Your task to perform on an android device: toggle location history Image 0: 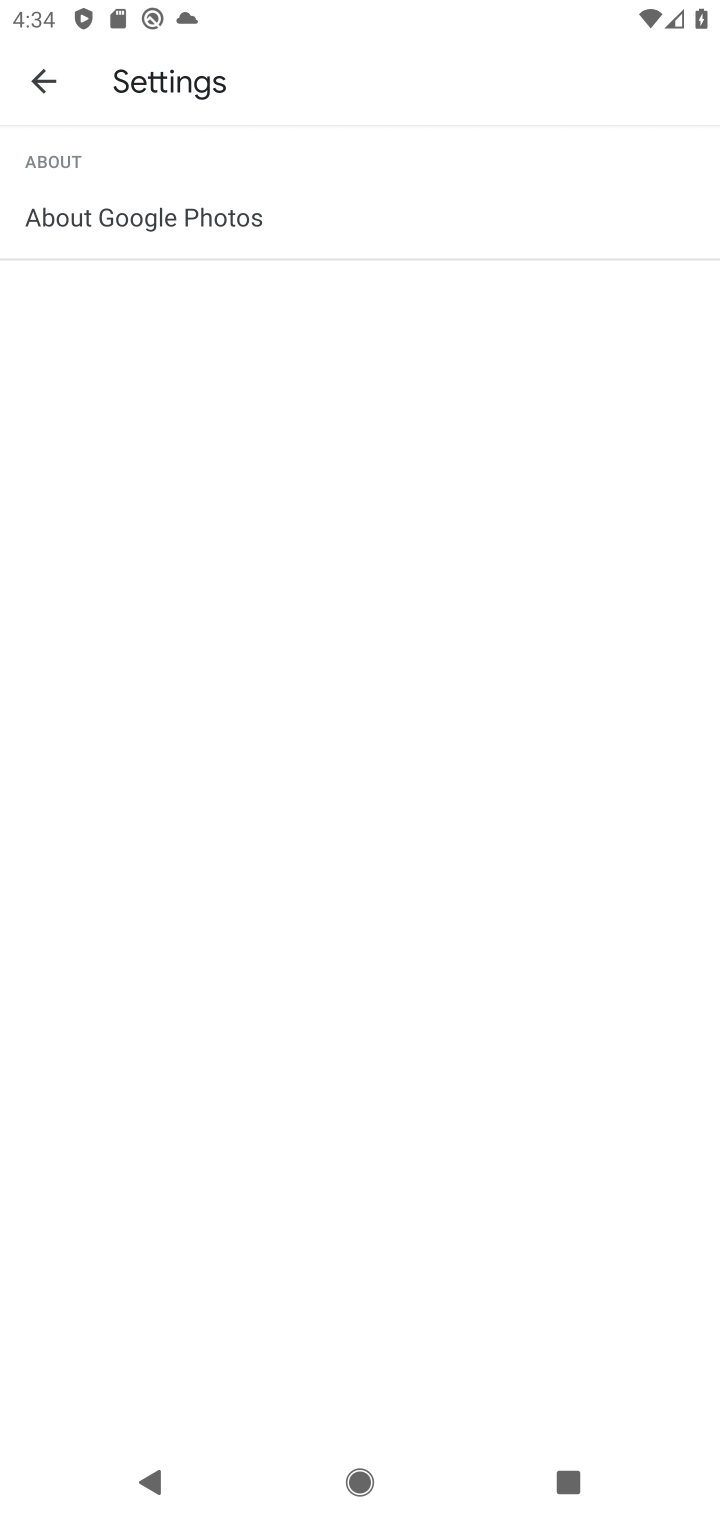
Step 0: press back button
Your task to perform on an android device: toggle location history Image 1: 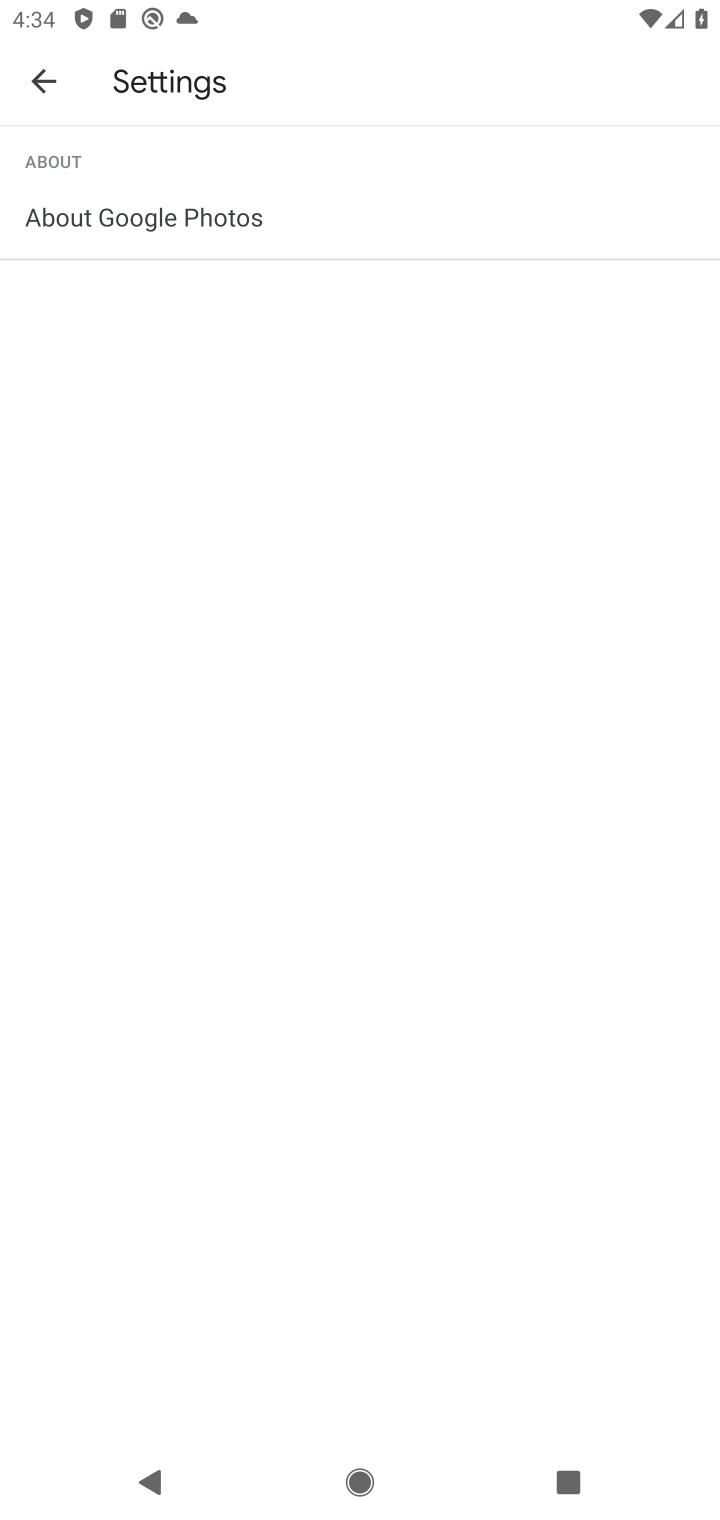
Step 1: press back button
Your task to perform on an android device: toggle location history Image 2: 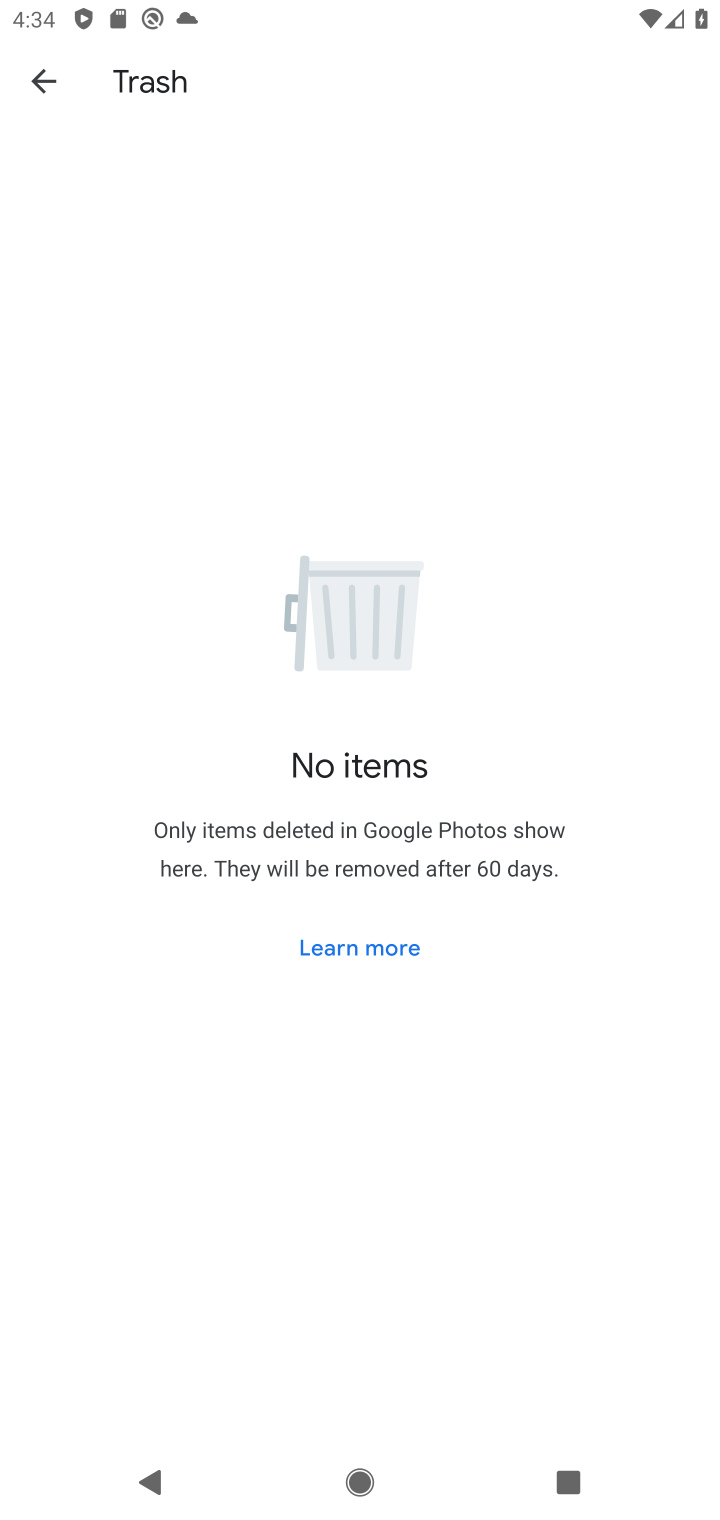
Step 2: press back button
Your task to perform on an android device: toggle location history Image 3: 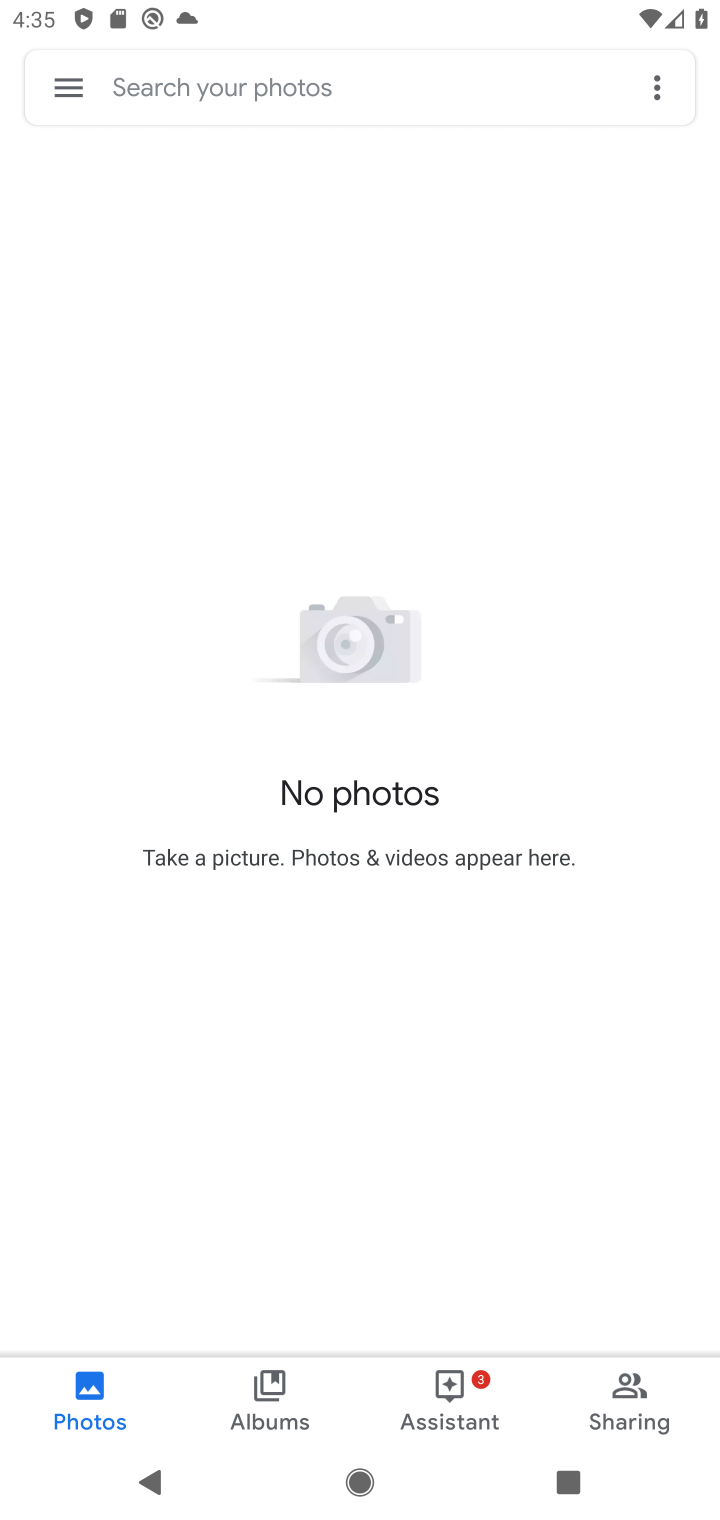
Step 3: press back button
Your task to perform on an android device: toggle location history Image 4: 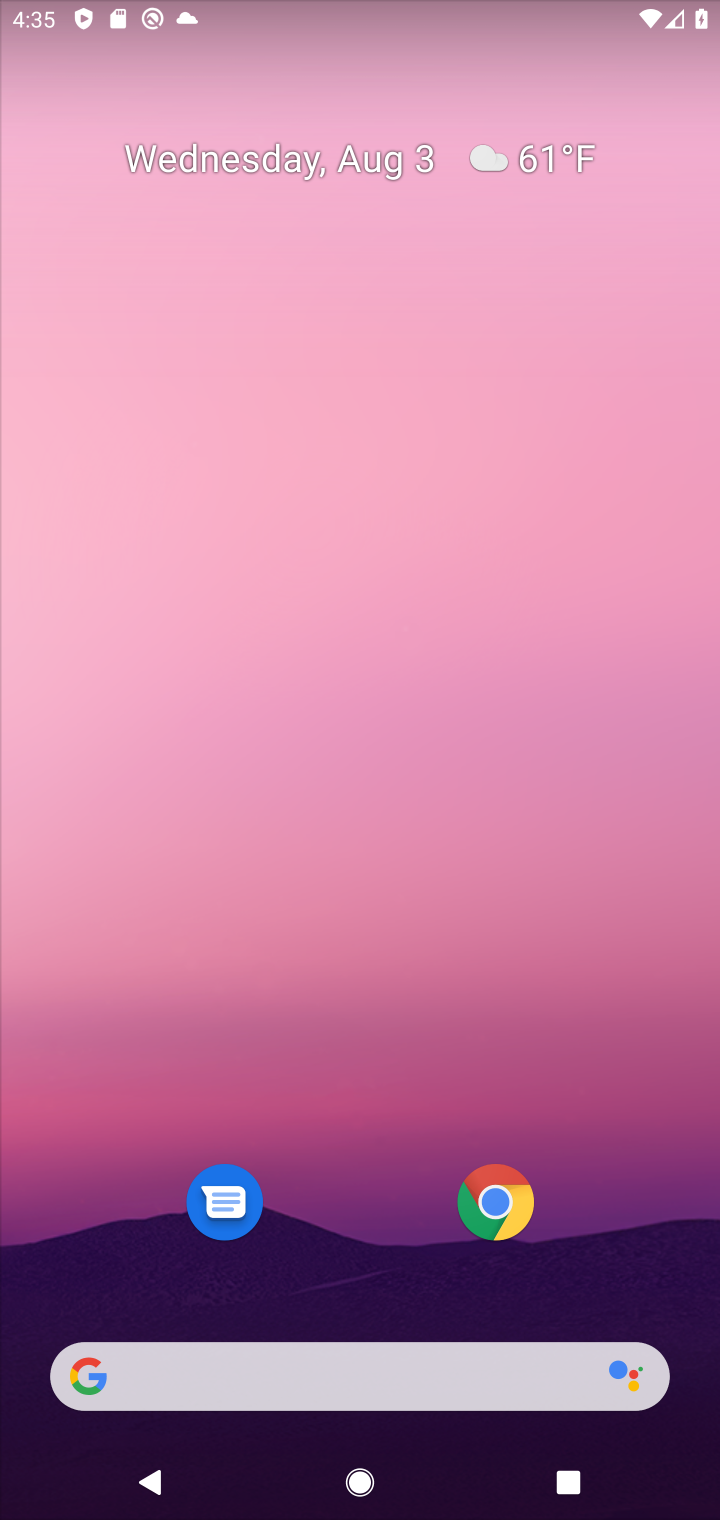
Step 4: drag from (378, 1121) to (365, 49)
Your task to perform on an android device: toggle location history Image 5: 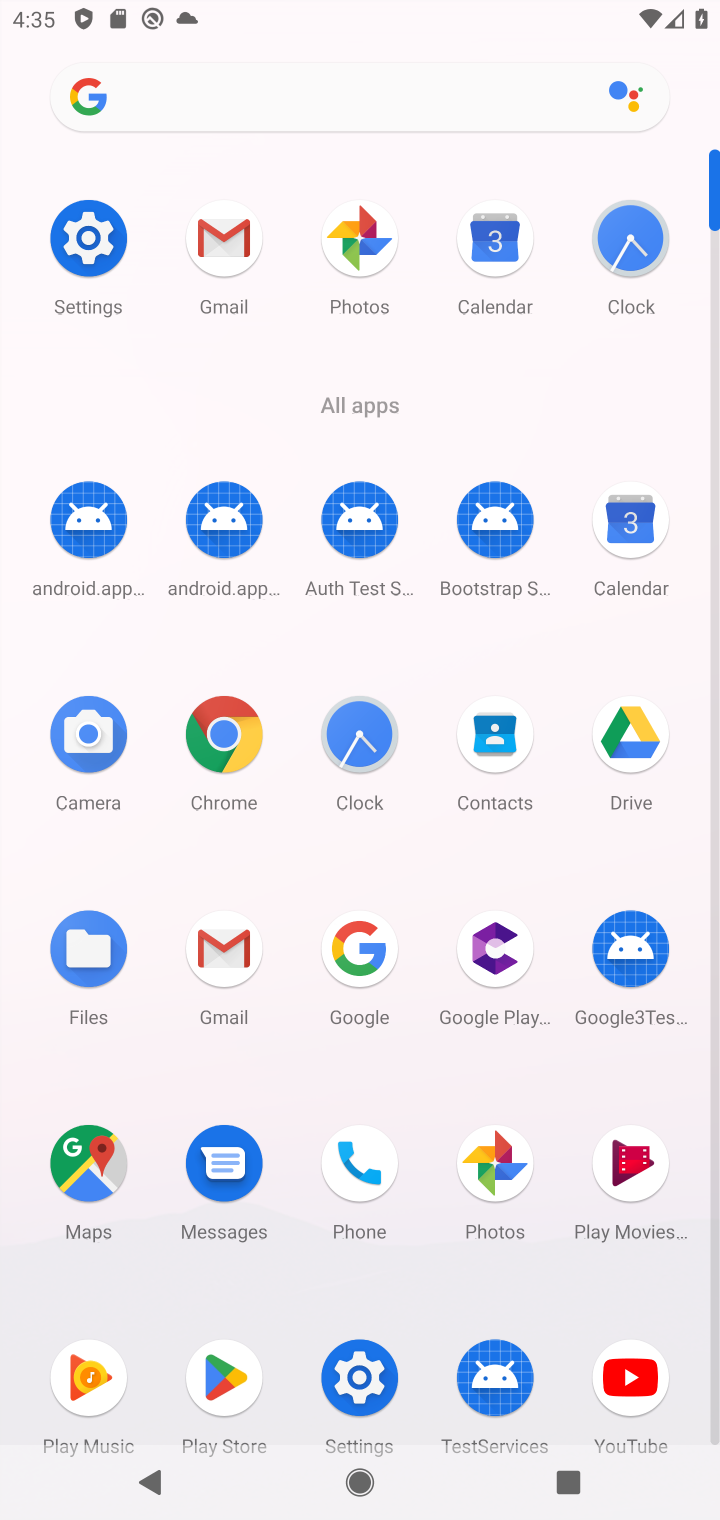
Step 5: click (94, 243)
Your task to perform on an android device: toggle location history Image 6: 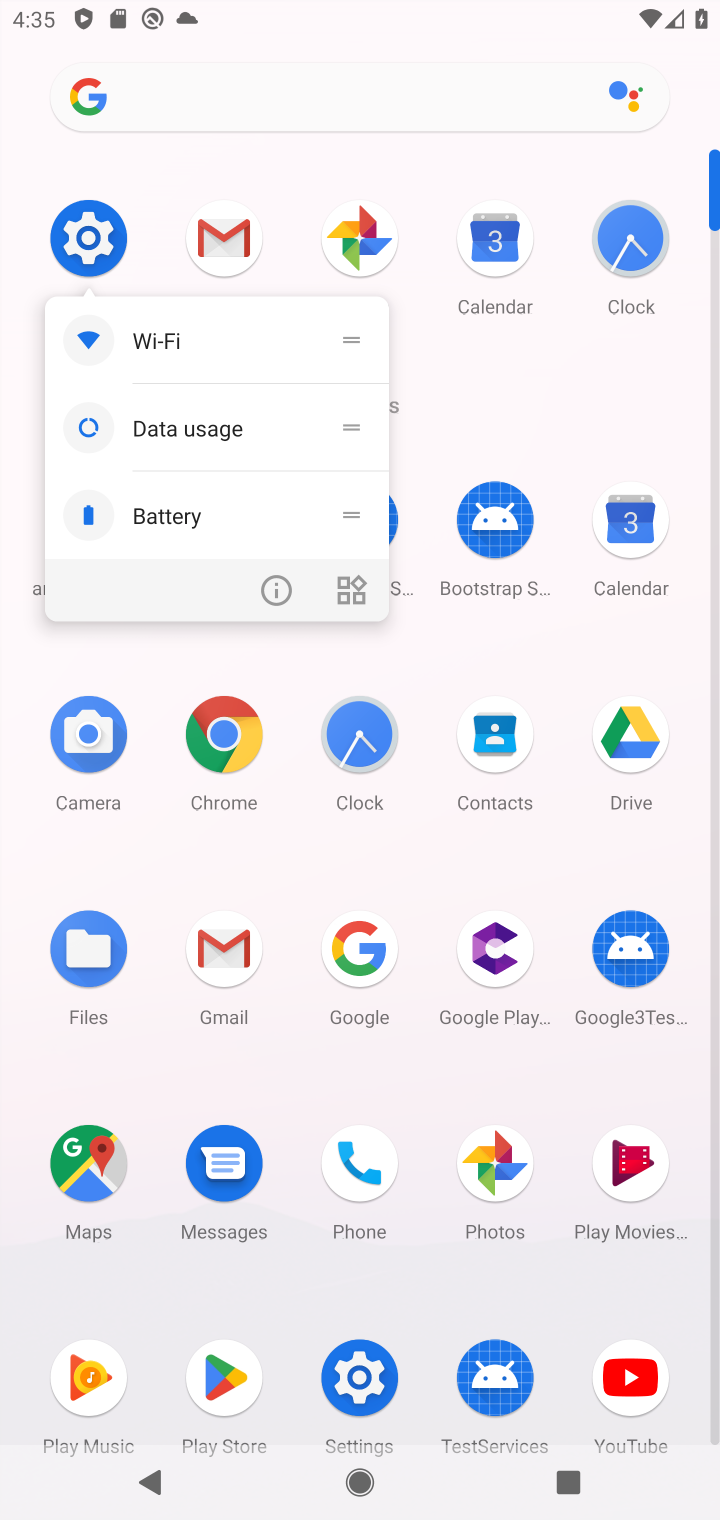
Step 6: click (95, 237)
Your task to perform on an android device: toggle location history Image 7: 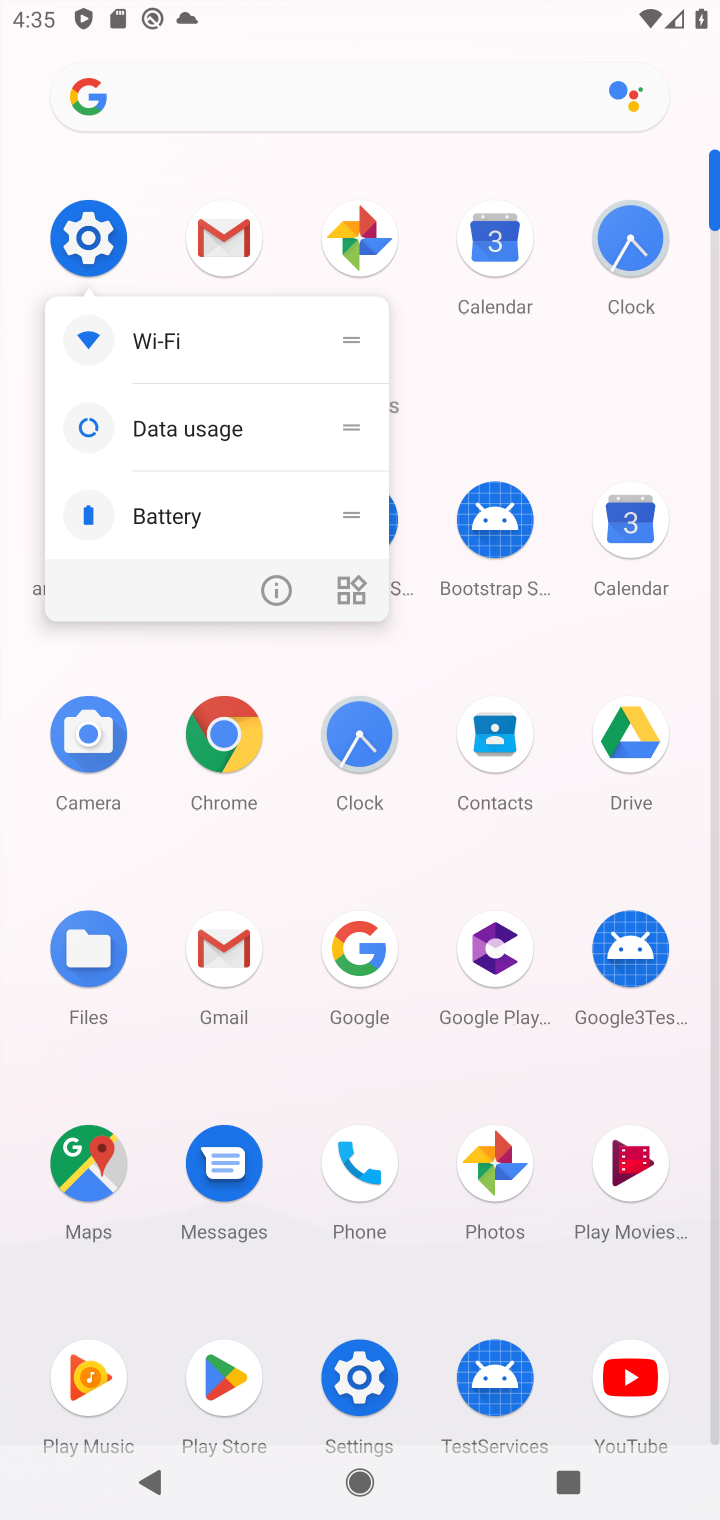
Step 7: click (94, 247)
Your task to perform on an android device: toggle location history Image 8: 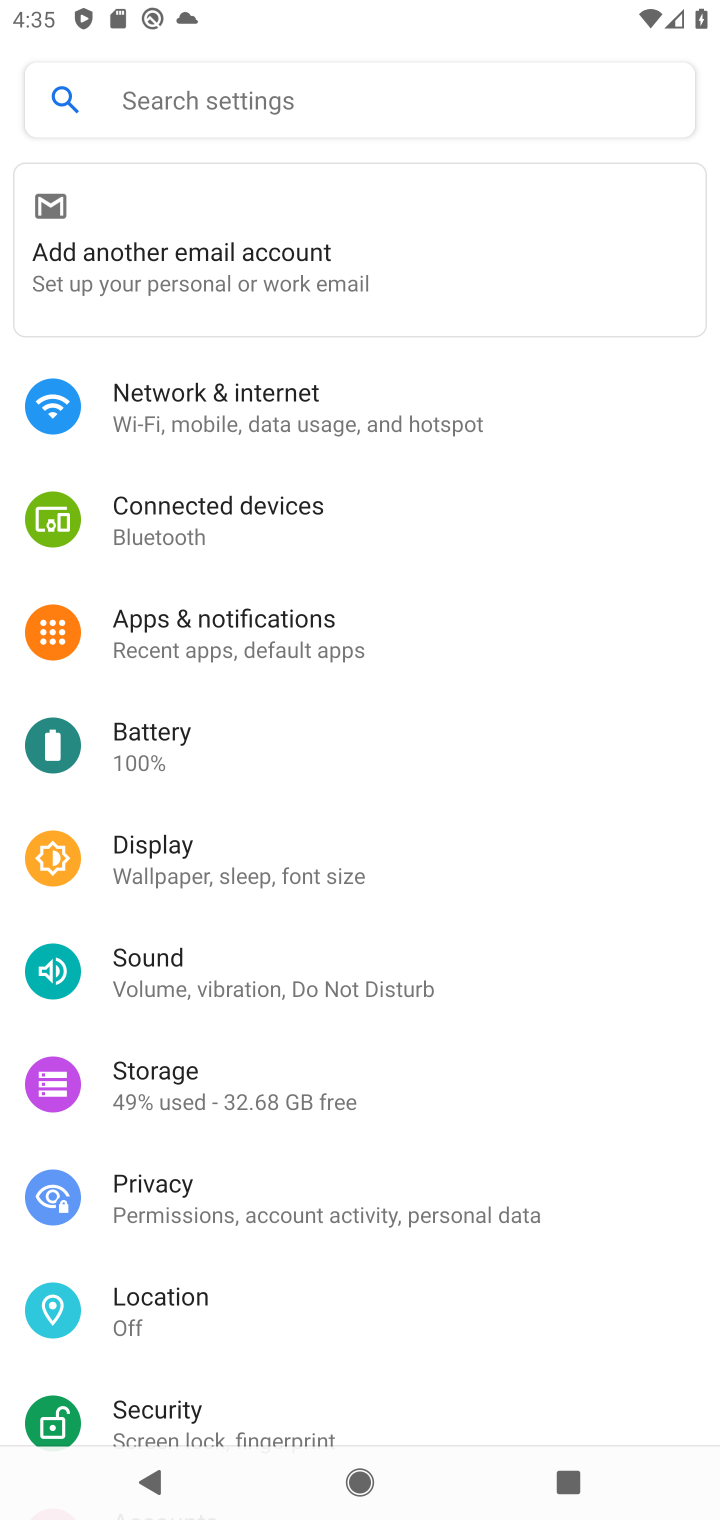
Step 8: click (237, 1295)
Your task to perform on an android device: toggle location history Image 9: 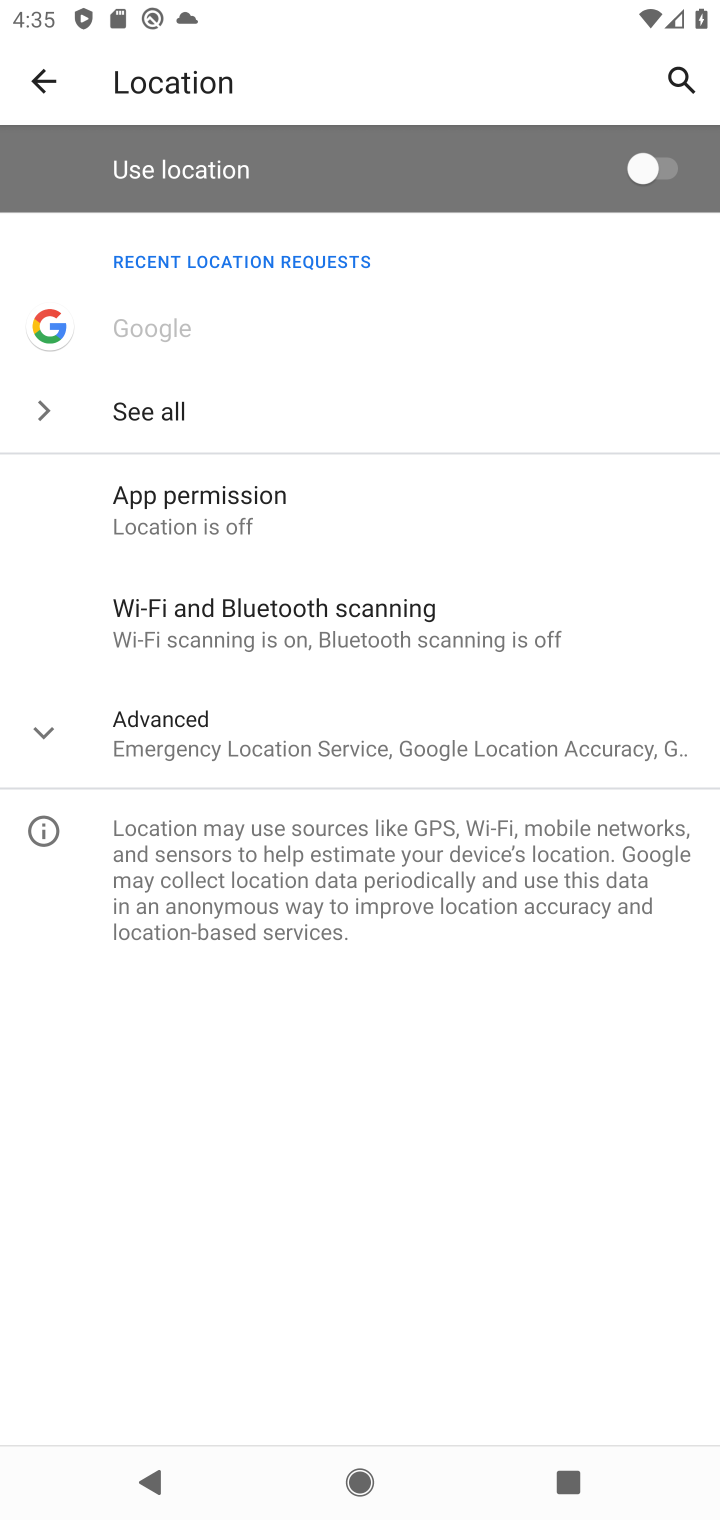
Step 9: click (363, 754)
Your task to perform on an android device: toggle location history Image 10: 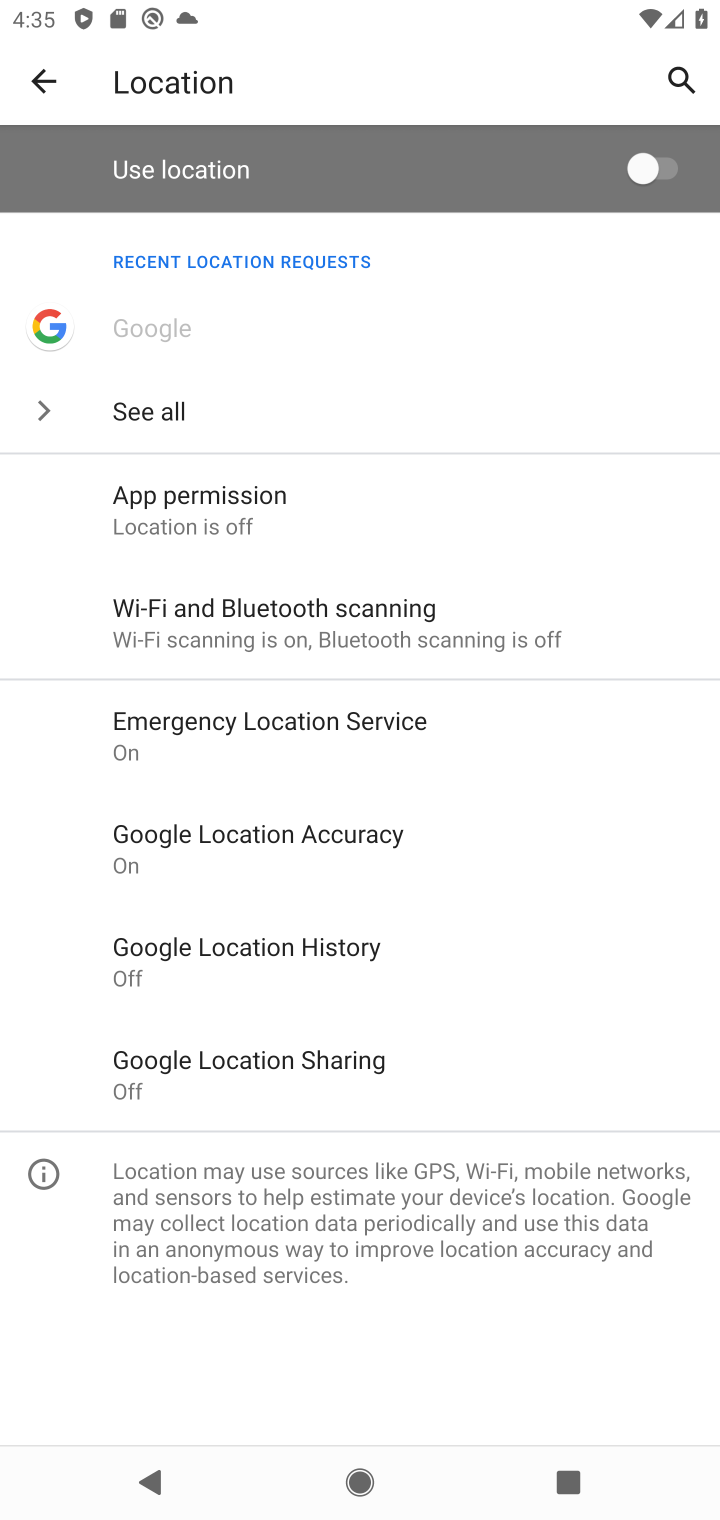
Step 10: click (308, 945)
Your task to perform on an android device: toggle location history Image 11: 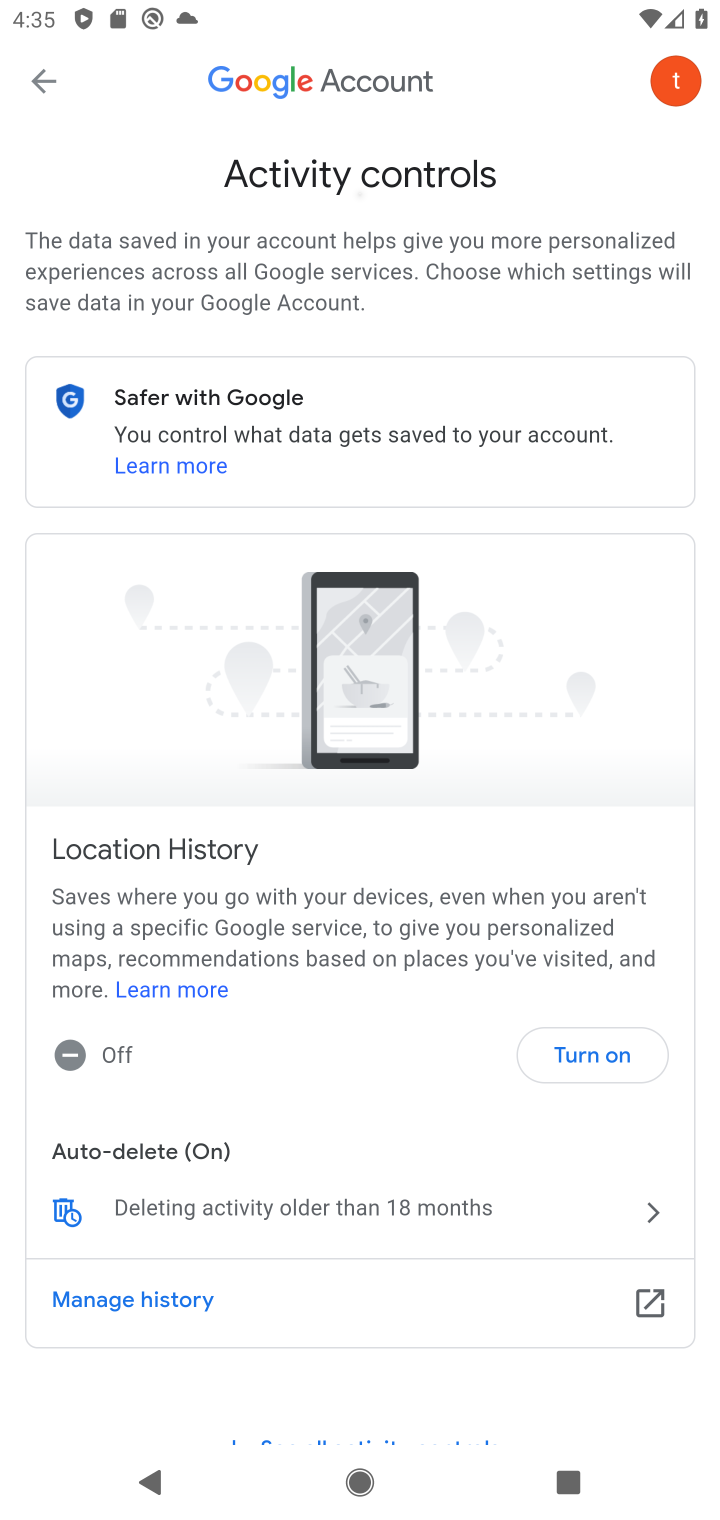
Step 11: click (619, 1054)
Your task to perform on an android device: toggle location history Image 12: 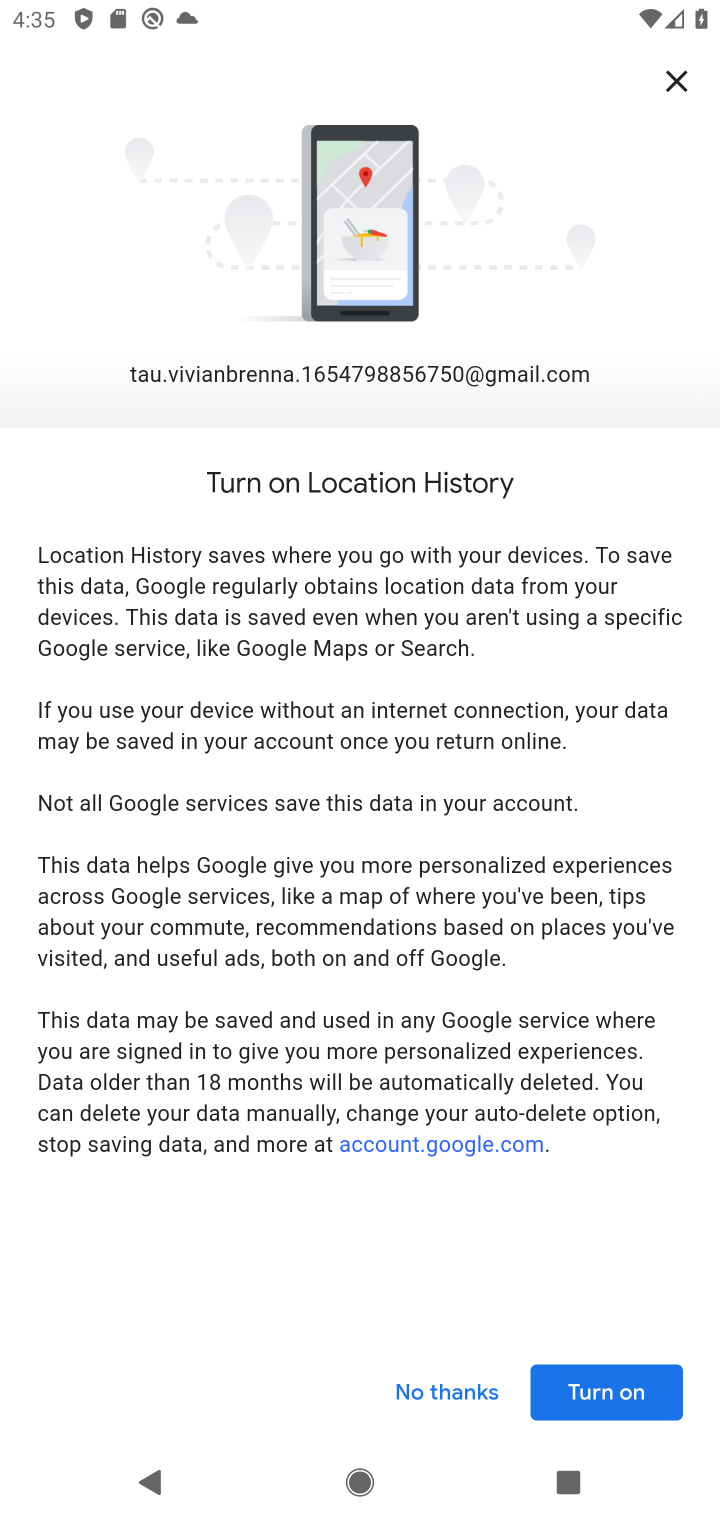
Step 12: click (606, 1392)
Your task to perform on an android device: toggle location history Image 13: 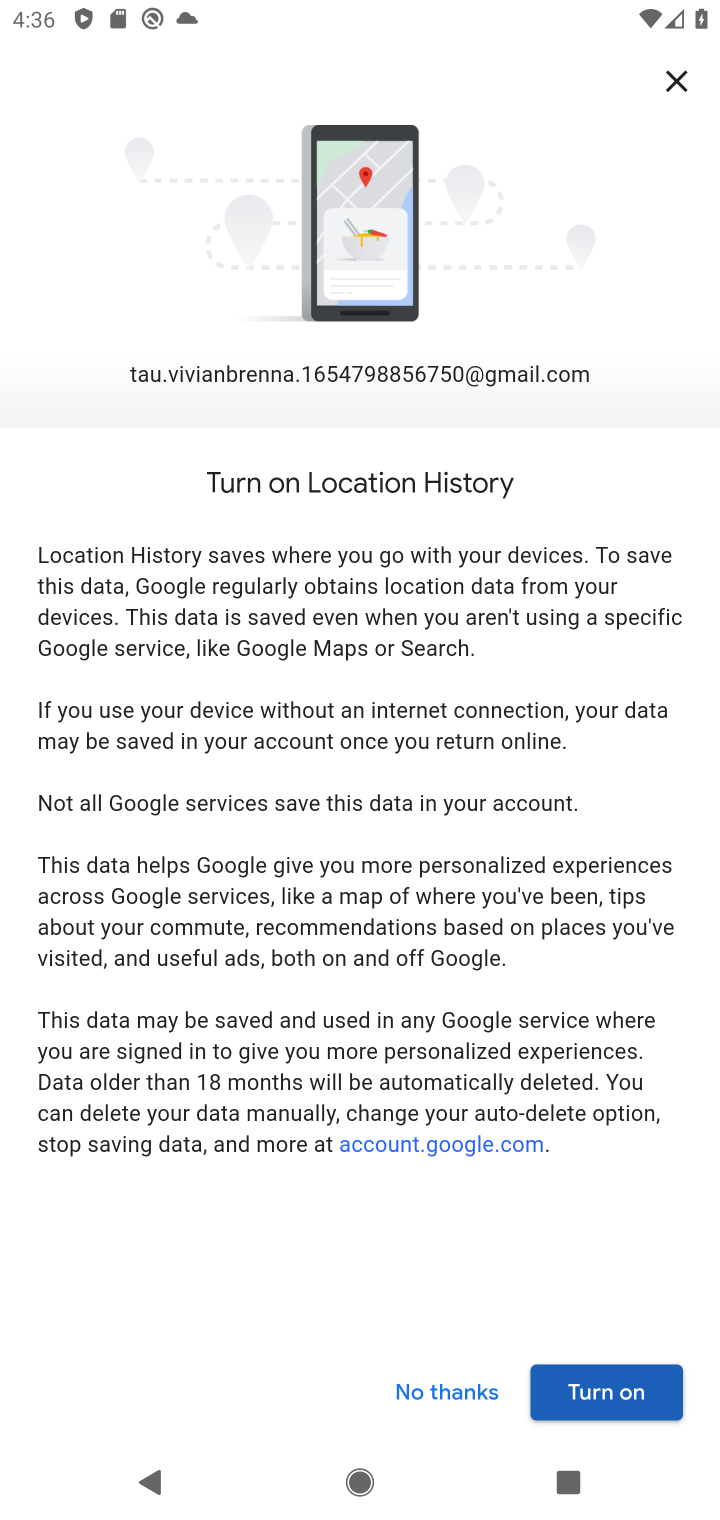
Step 13: click (592, 1406)
Your task to perform on an android device: toggle location history Image 14: 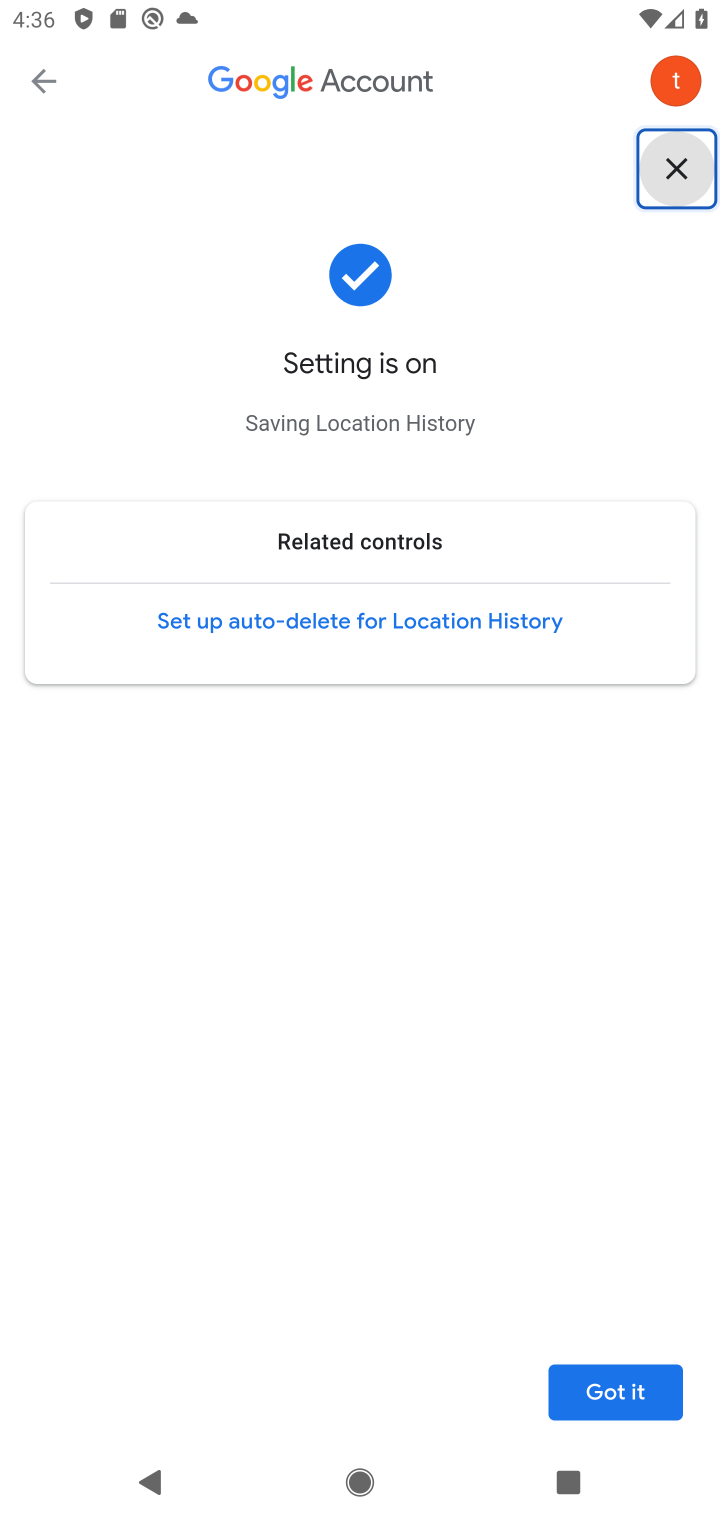
Step 14: task complete